Your task to perform on an android device: check storage Image 0: 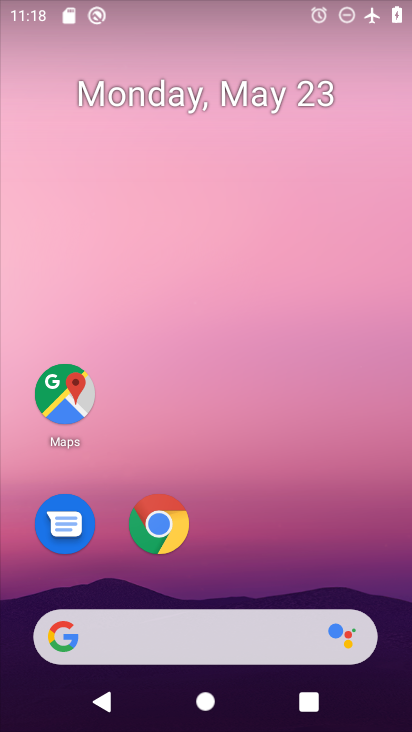
Step 0: drag from (213, 572) to (221, 195)
Your task to perform on an android device: check storage Image 1: 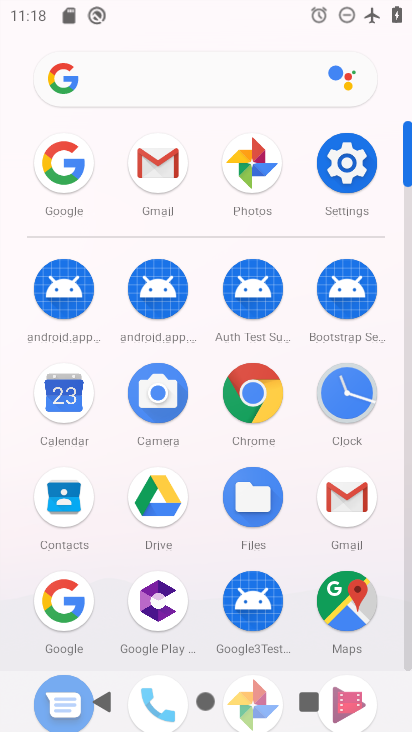
Step 1: click (347, 165)
Your task to perform on an android device: check storage Image 2: 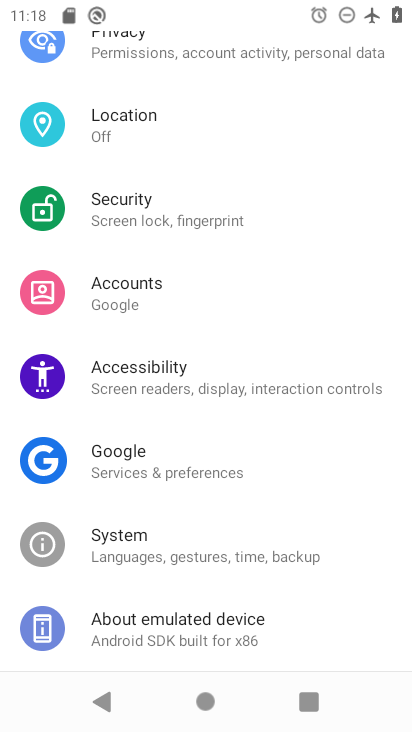
Step 2: drag from (214, 245) to (216, 469)
Your task to perform on an android device: check storage Image 3: 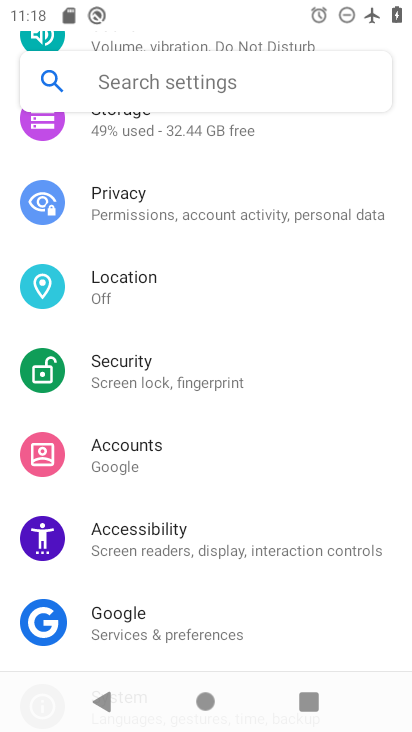
Step 3: drag from (173, 269) to (171, 493)
Your task to perform on an android device: check storage Image 4: 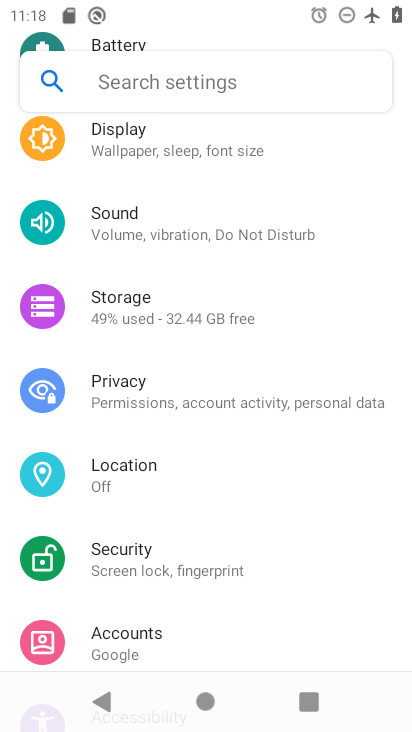
Step 4: click (142, 302)
Your task to perform on an android device: check storage Image 5: 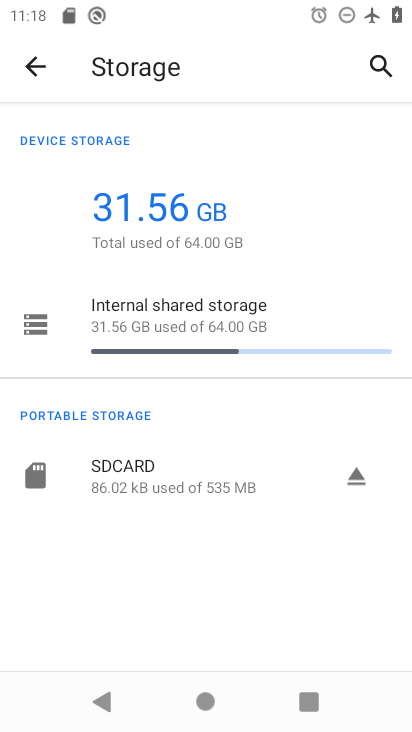
Step 5: task complete